Your task to perform on an android device: What's the weather? Image 0: 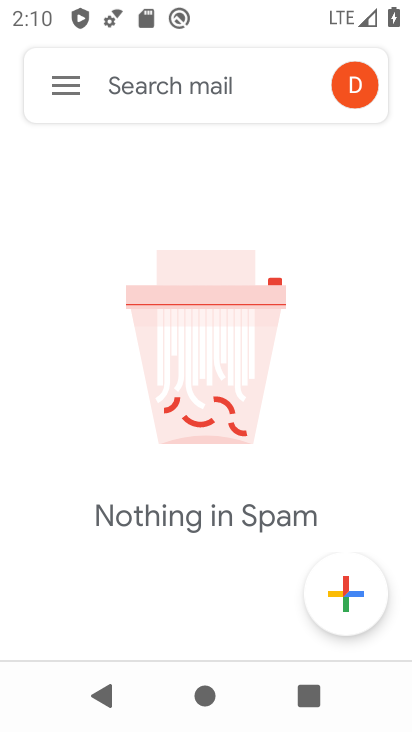
Step 0: press home button
Your task to perform on an android device: What's the weather? Image 1: 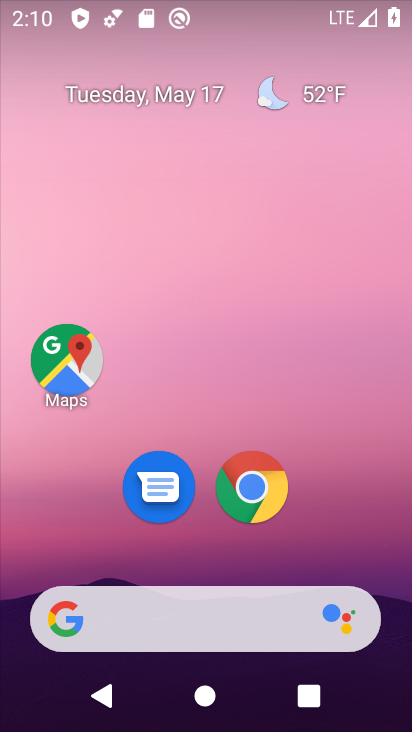
Step 1: click (300, 90)
Your task to perform on an android device: What's the weather? Image 2: 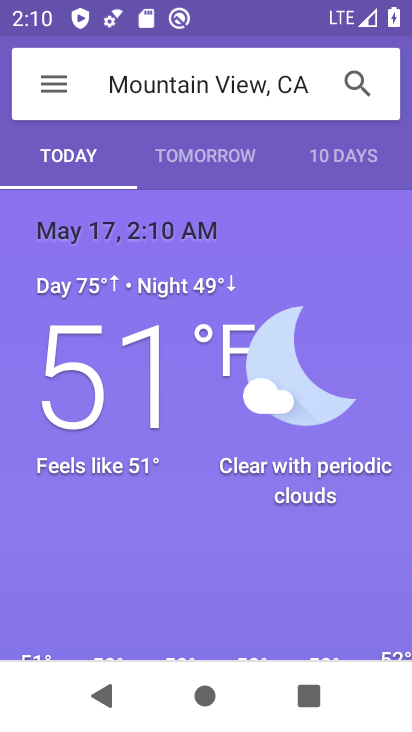
Step 2: task complete